Your task to perform on an android device: stop showing notifications on the lock screen Image 0: 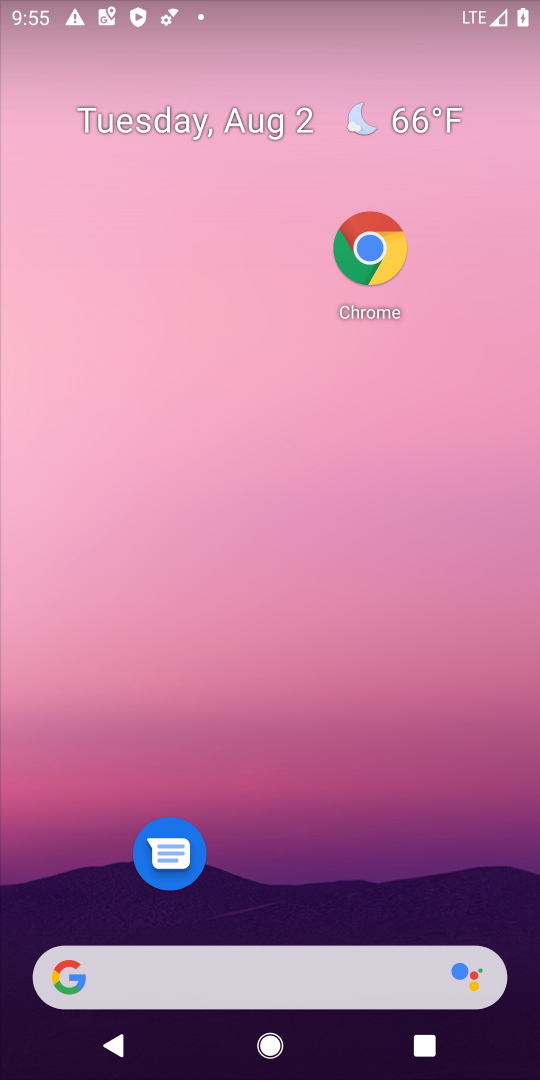
Step 0: drag from (272, 836) to (240, 50)
Your task to perform on an android device: stop showing notifications on the lock screen Image 1: 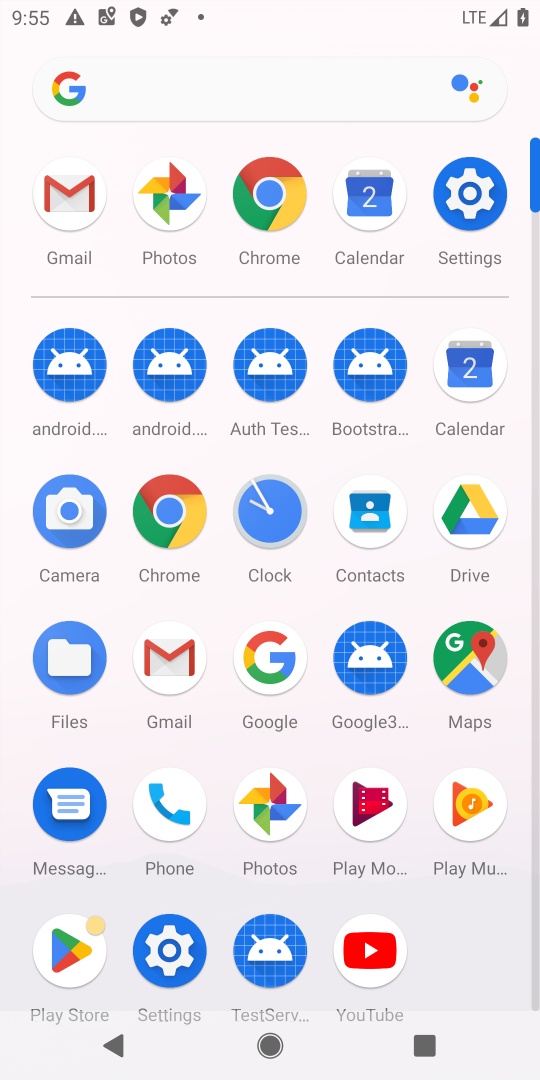
Step 1: click (470, 167)
Your task to perform on an android device: stop showing notifications on the lock screen Image 2: 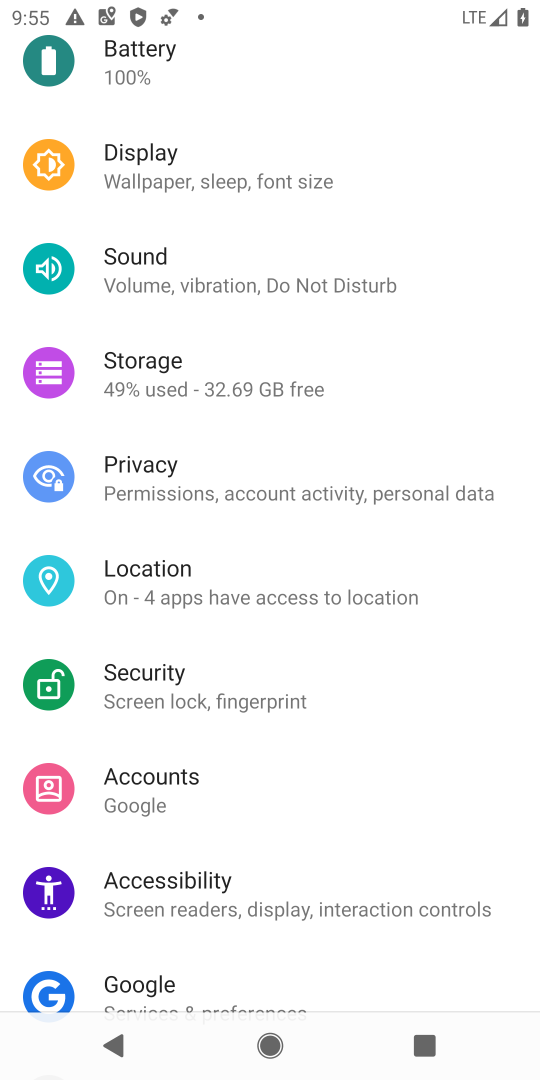
Step 2: drag from (230, 333) to (308, 937)
Your task to perform on an android device: stop showing notifications on the lock screen Image 3: 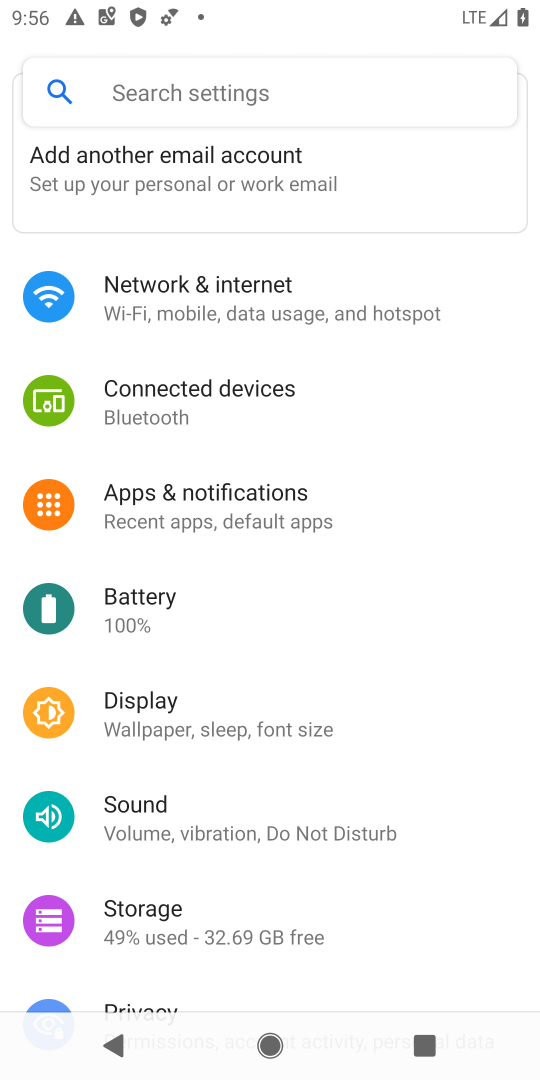
Step 3: click (243, 482)
Your task to perform on an android device: stop showing notifications on the lock screen Image 4: 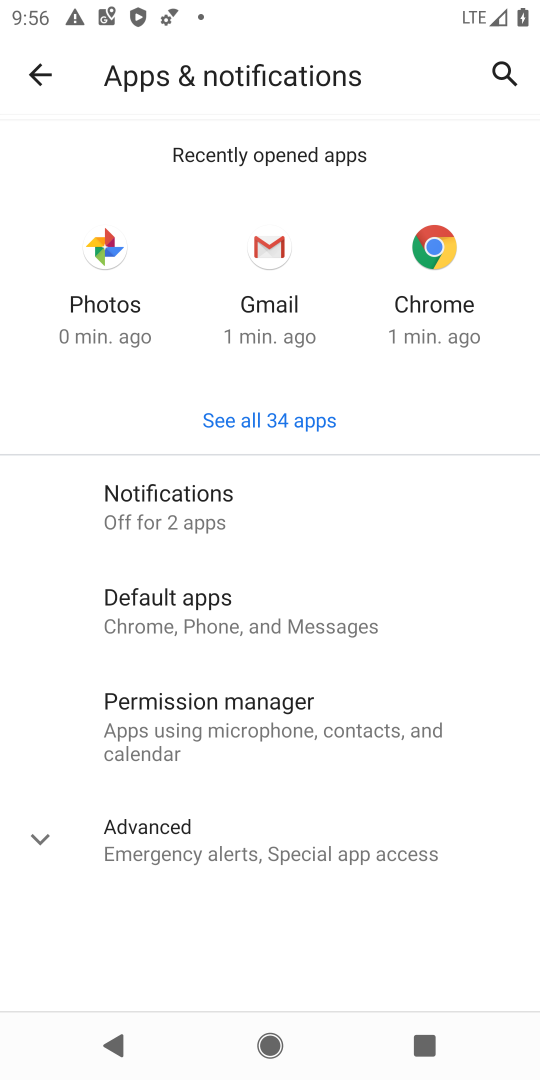
Step 4: click (79, 492)
Your task to perform on an android device: stop showing notifications on the lock screen Image 5: 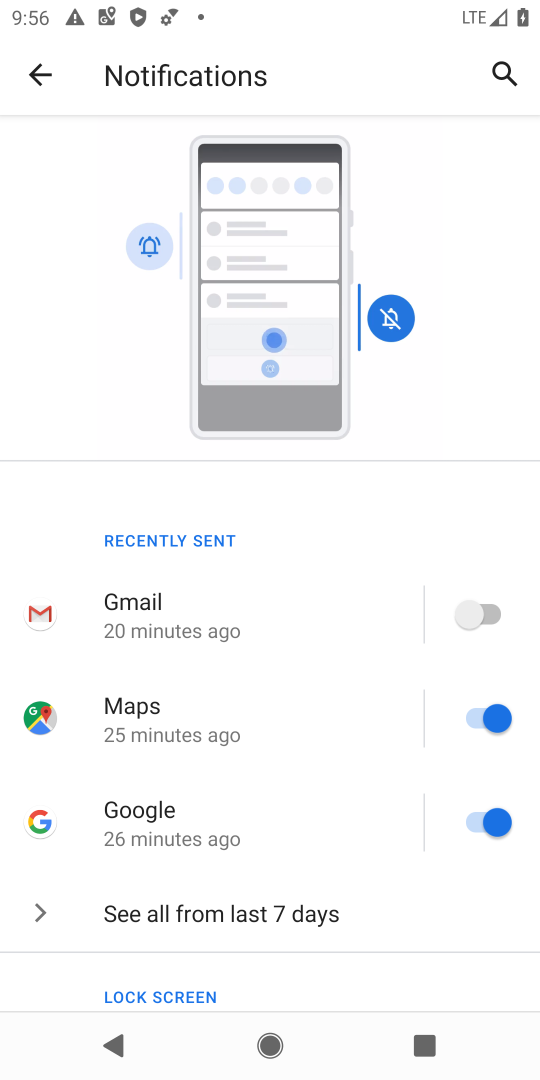
Step 5: drag from (223, 940) to (171, 251)
Your task to perform on an android device: stop showing notifications on the lock screen Image 6: 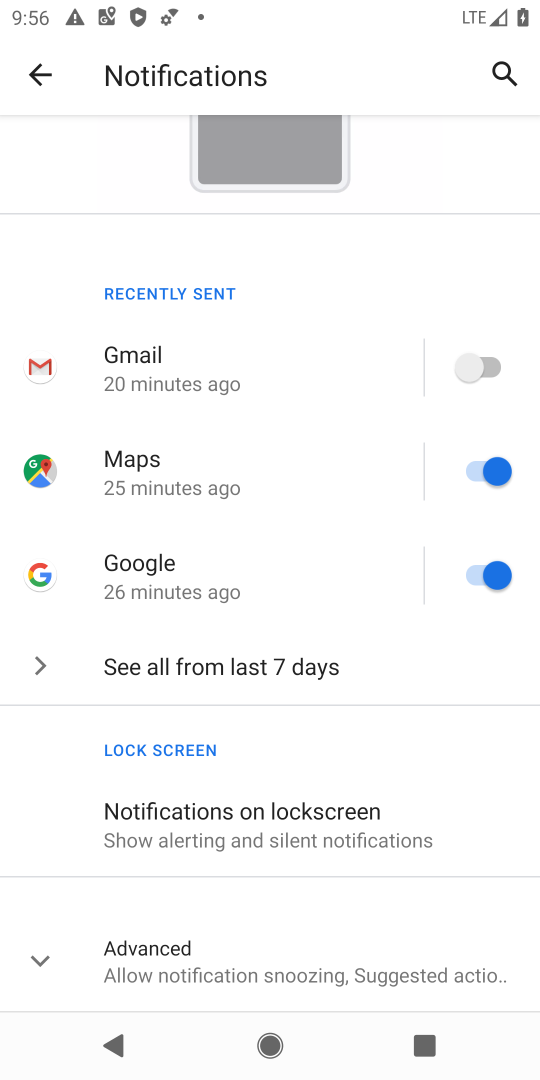
Step 6: click (212, 846)
Your task to perform on an android device: stop showing notifications on the lock screen Image 7: 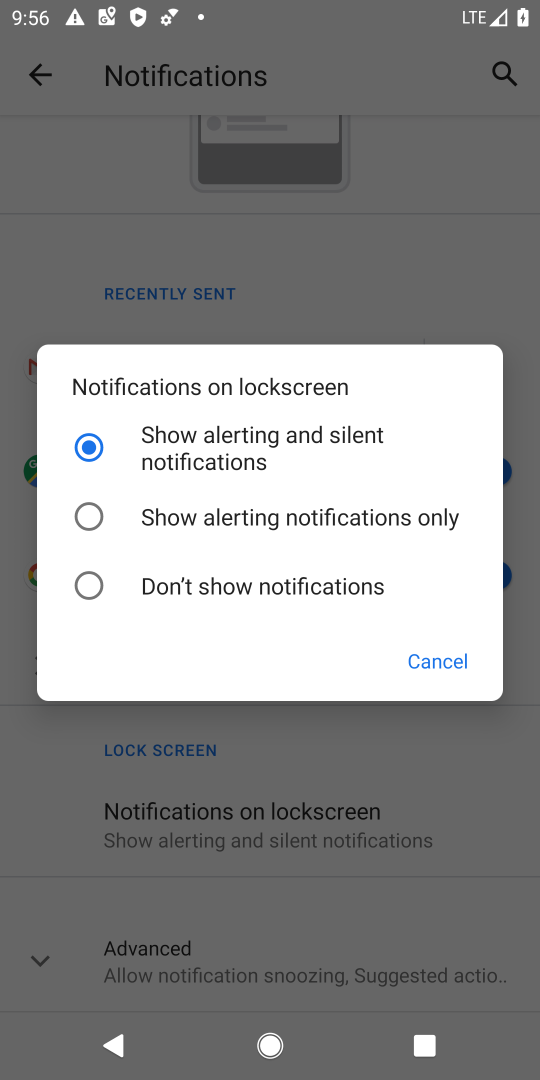
Step 7: click (131, 608)
Your task to perform on an android device: stop showing notifications on the lock screen Image 8: 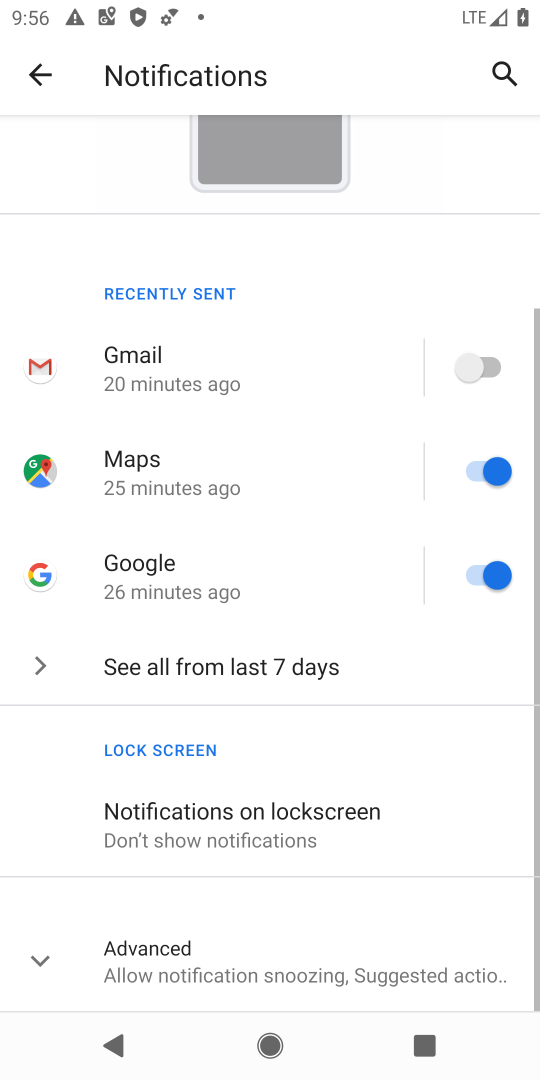
Step 8: task complete